Your task to perform on an android device: open a new tab in the chrome app Image 0: 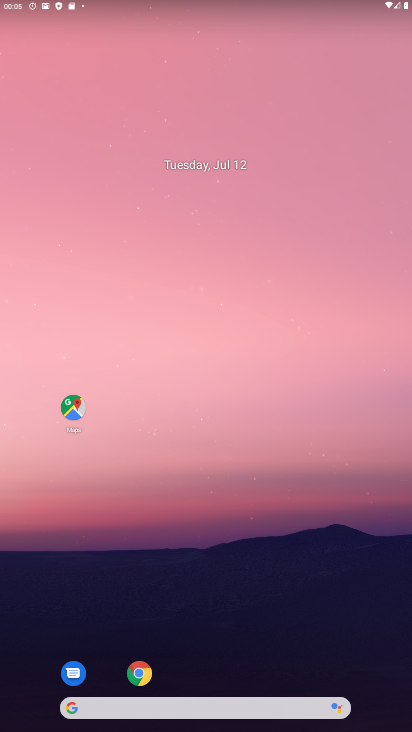
Step 0: press home button
Your task to perform on an android device: open a new tab in the chrome app Image 1: 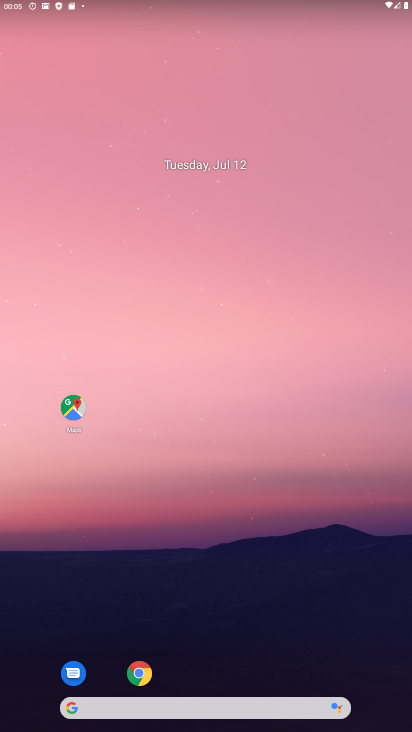
Step 1: drag from (276, 612) to (220, 61)
Your task to perform on an android device: open a new tab in the chrome app Image 2: 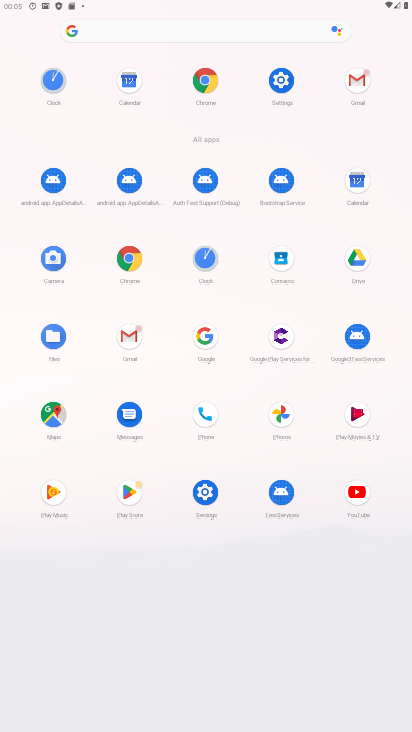
Step 2: click (202, 78)
Your task to perform on an android device: open a new tab in the chrome app Image 3: 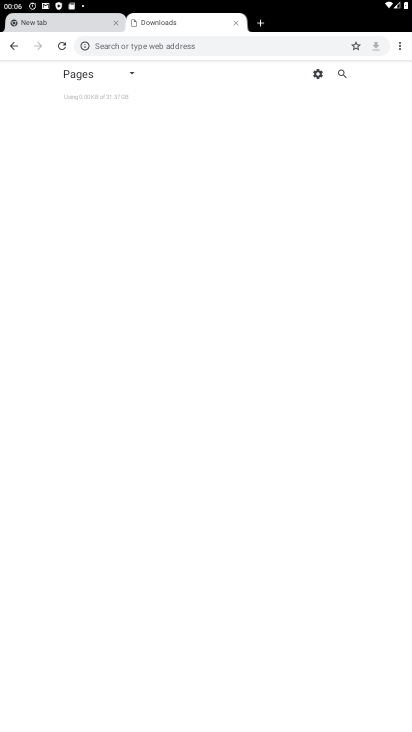
Step 3: click (399, 41)
Your task to perform on an android device: open a new tab in the chrome app Image 4: 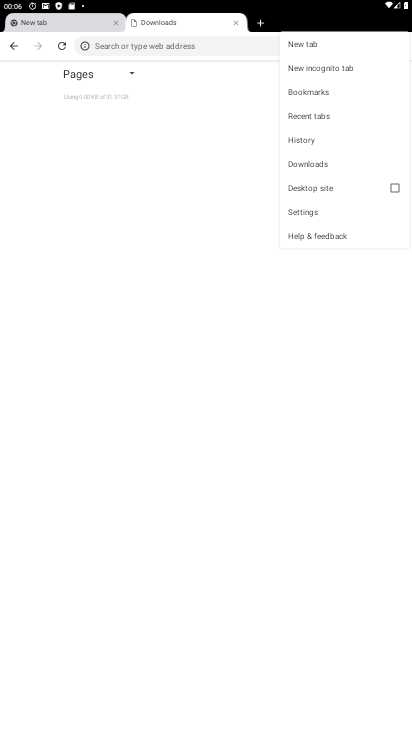
Step 4: click (362, 50)
Your task to perform on an android device: open a new tab in the chrome app Image 5: 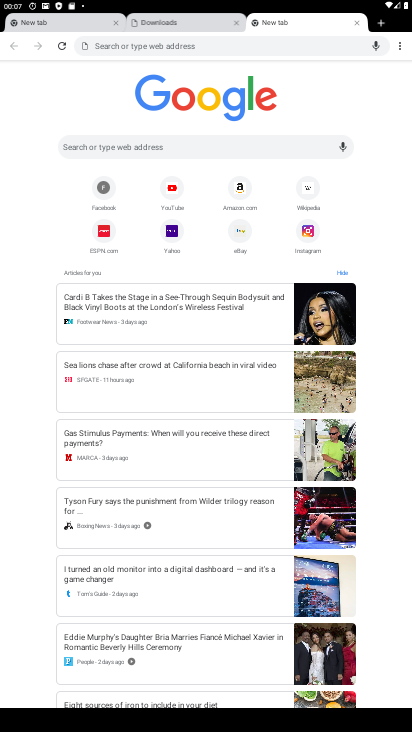
Step 5: task complete